Your task to perform on an android device: open app "PlayWell" (install if not already installed) and go to login screen Image 0: 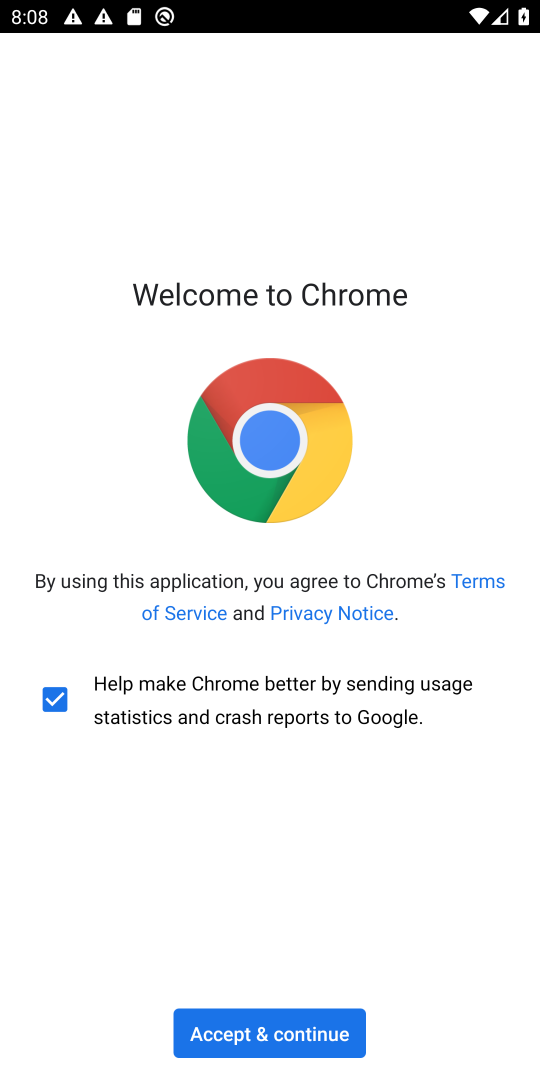
Step 0: press home button
Your task to perform on an android device: open app "PlayWell" (install if not already installed) and go to login screen Image 1: 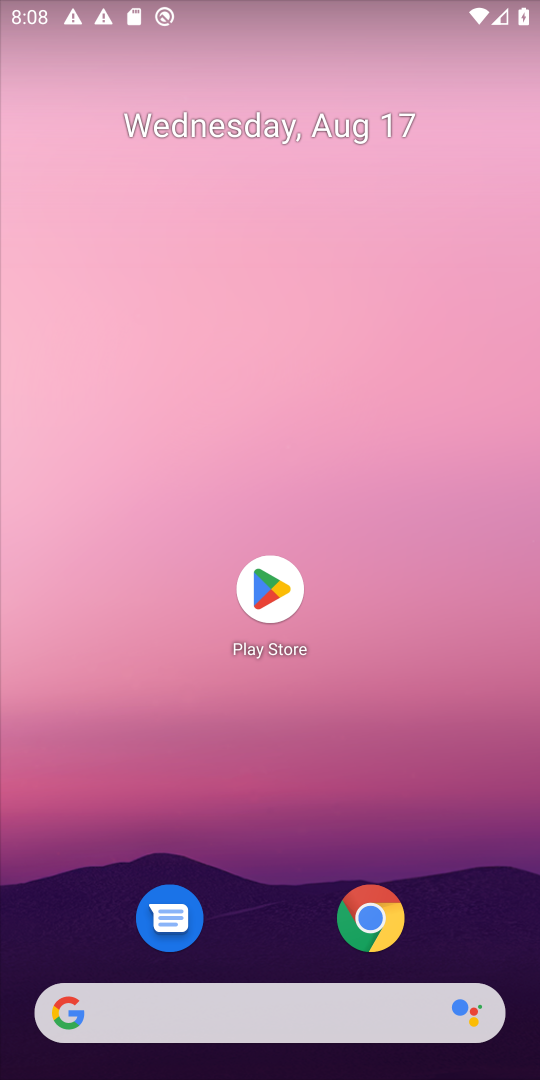
Step 1: click (273, 582)
Your task to perform on an android device: open app "PlayWell" (install if not already installed) and go to login screen Image 2: 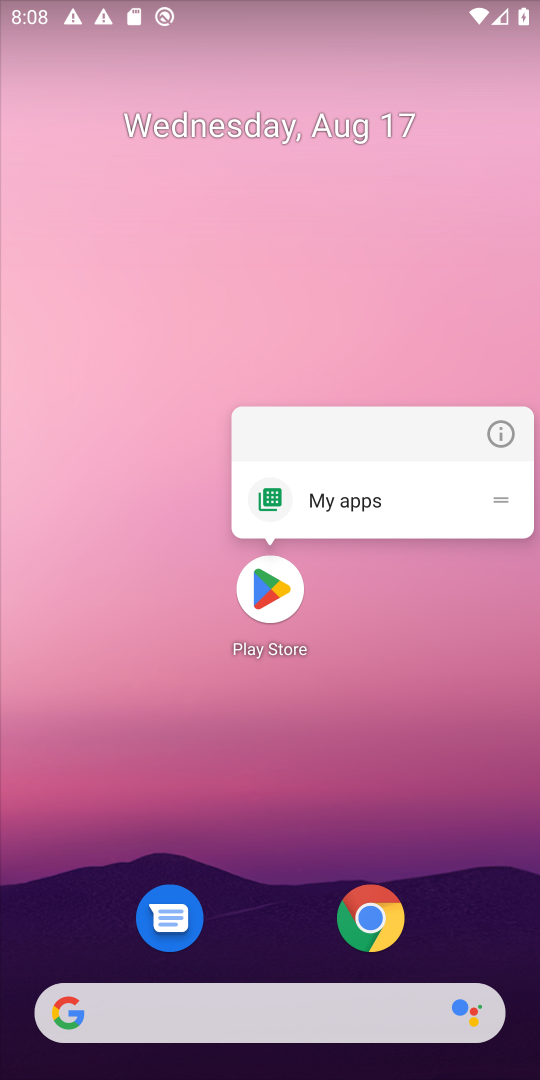
Step 2: click (273, 582)
Your task to perform on an android device: open app "PlayWell" (install if not already installed) and go to login screen Image 3: 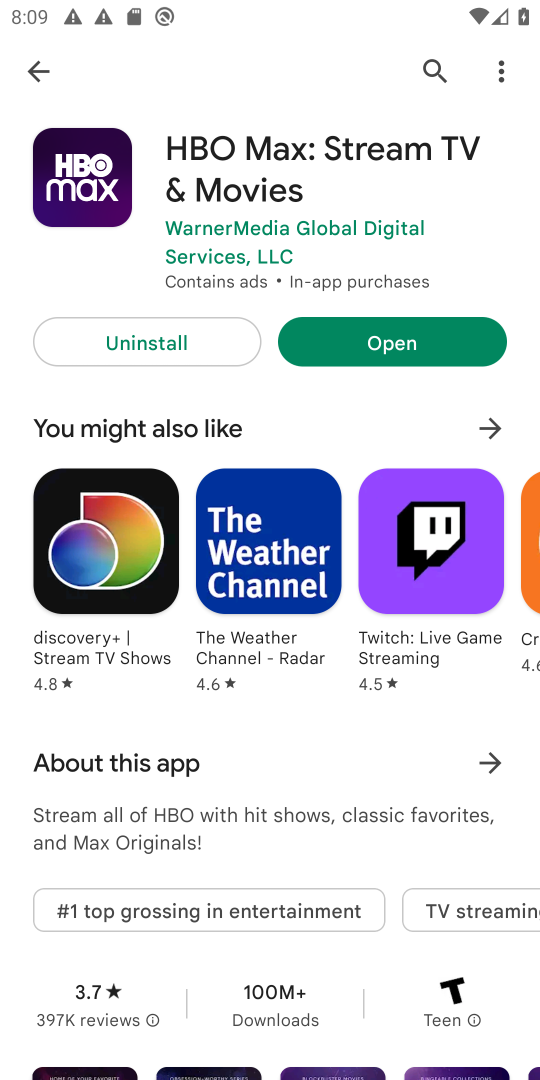
Step 3: click (429, 68)
Your task to perform on an android device: open app "PlayWell" (install if not already installed) and go to login screen Image 4: 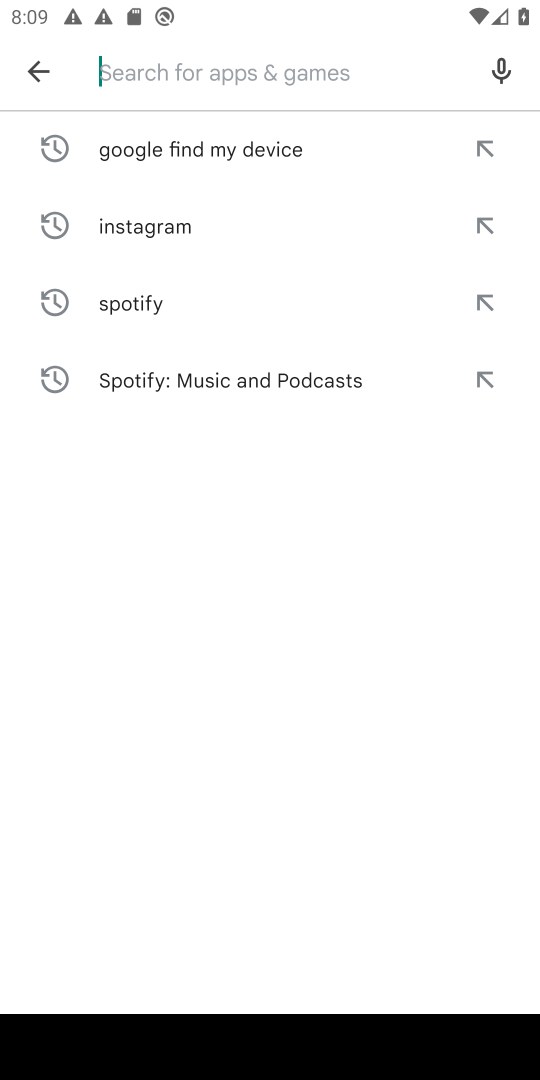
Step 4: type "PlayWell"
Your task to perform on an android device: open app "PlayWell" (install if not already installed) and go to login screen Image 5: 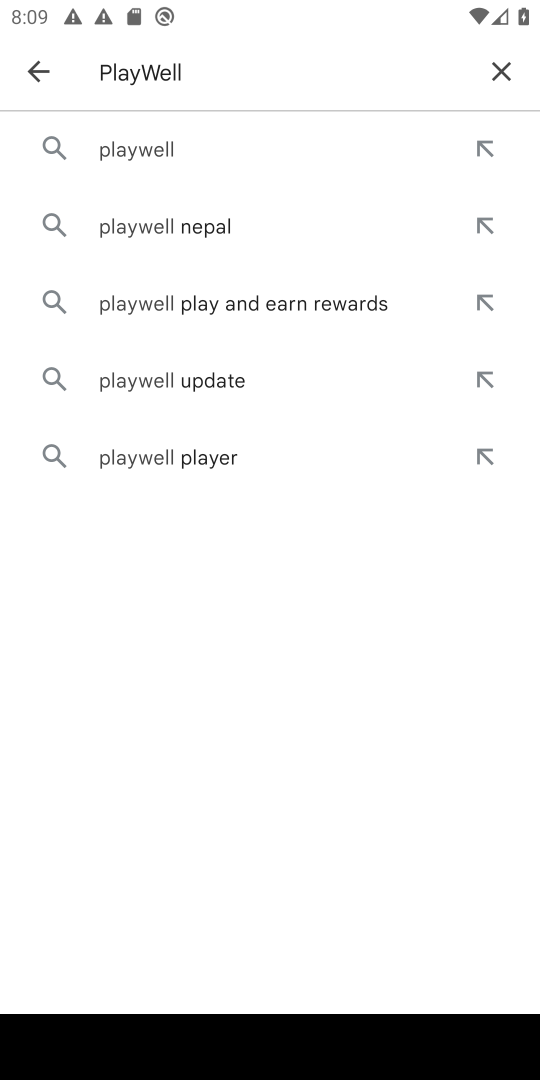
Step 5: click (158, 145)
Your task to perform on an android device: open app "PlayWell" (install if not already installed) and go to login screen Image 6: 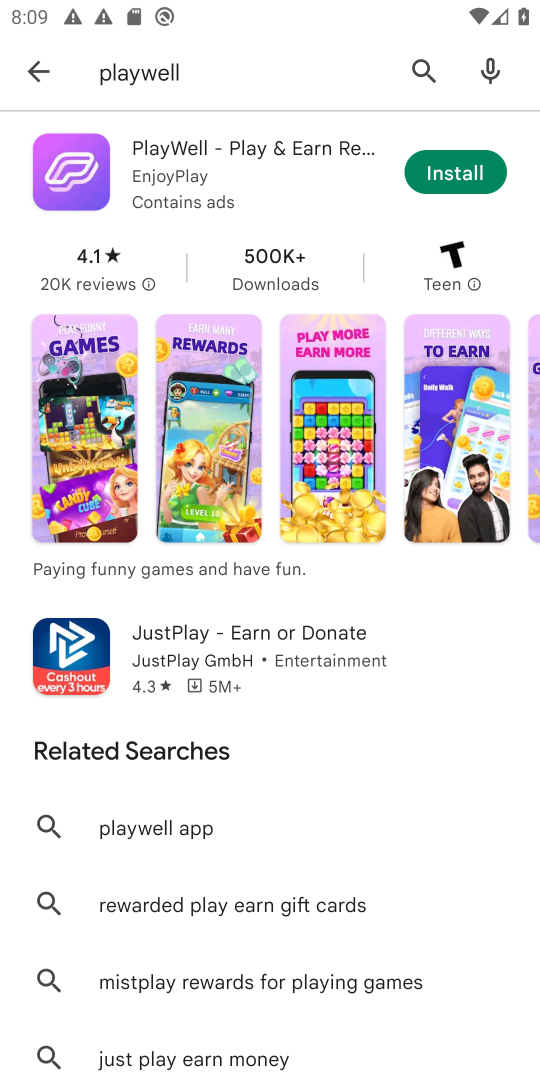
Step 6: click (461, 177)
Your task to perform on an android device: open app "PlayWell" (install if not already installed) and go to login screen Image 7: 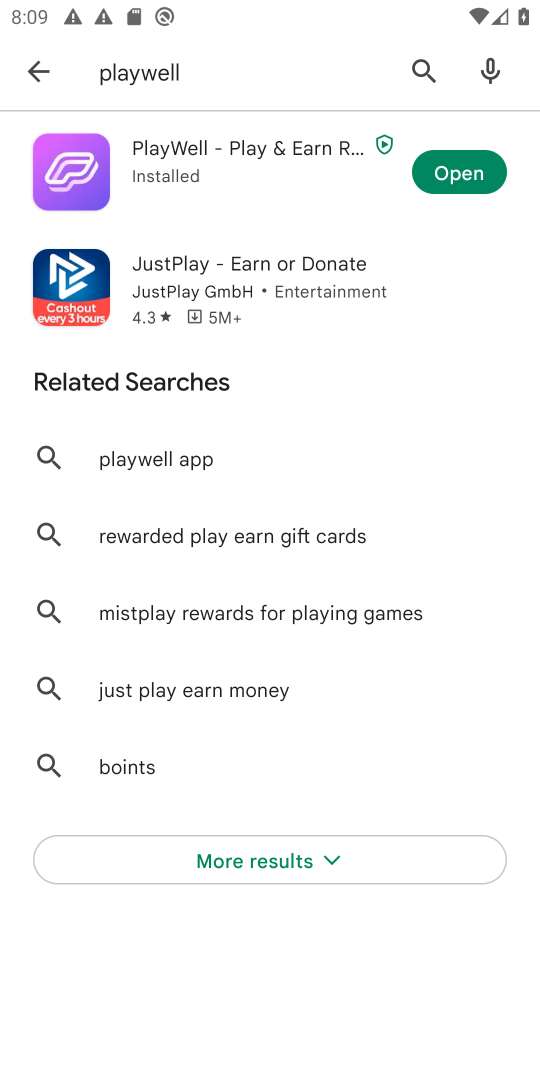
Step 7: click (437, 180)
Your task to perform on an android device: open app "PlayWell" (install if not already installed) and go to login screen Image 8: 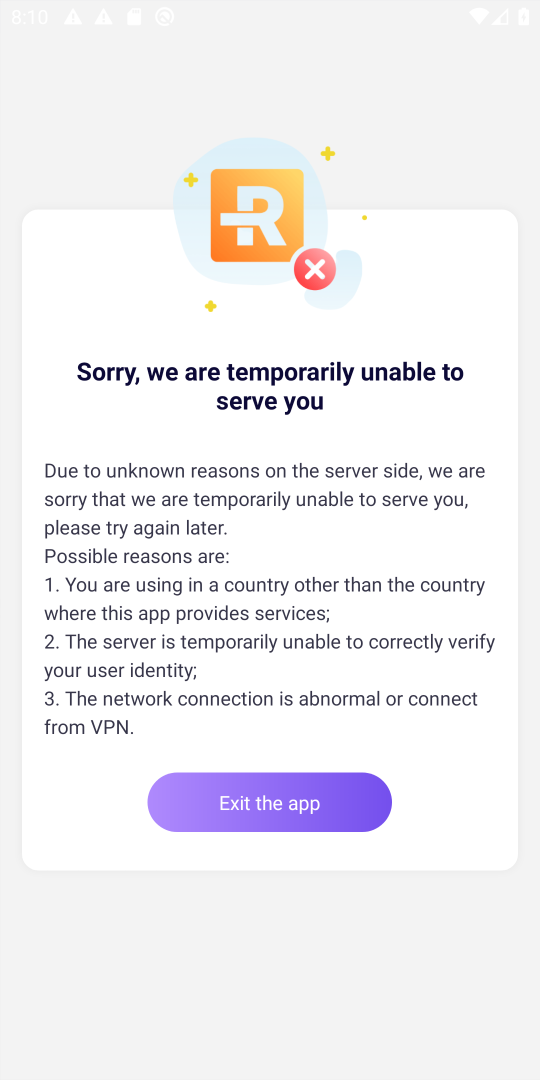
Step 8: task complete